Your task to perform on an android device: allow cookies in the chrome app Image 0: 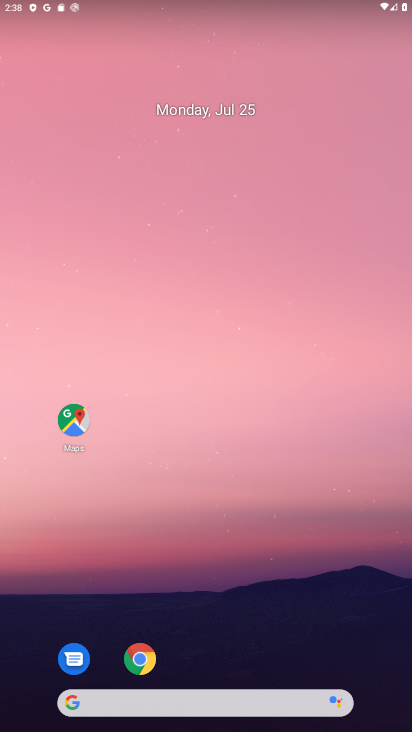
Step 0: click (132, 670)
Your task to perform on an android device: allow cookies in the chrome app Image 1: 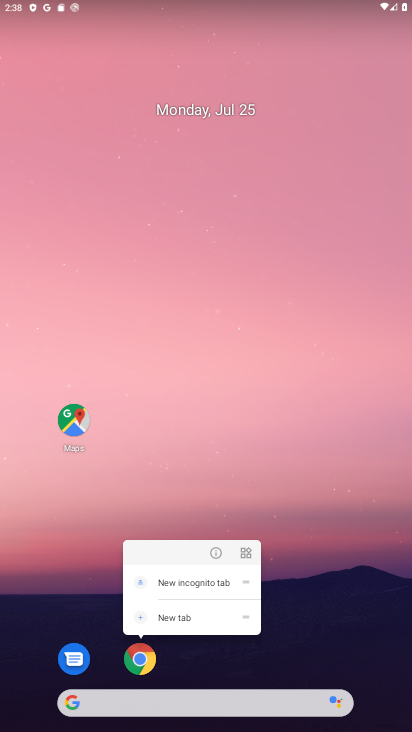
Step 1: click (150, 640)
Your task to perform on an android device: allow cookies in the chrome app Image 2: 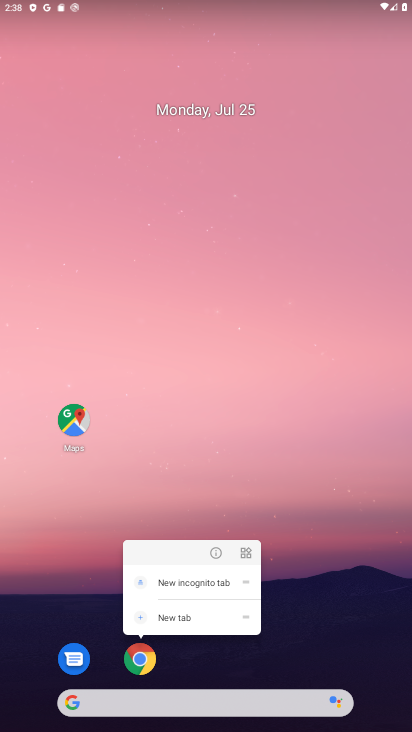
Step 2: click (149, 658)
Your task to perform on an android device: allow cookies in the chrome app Image 3: 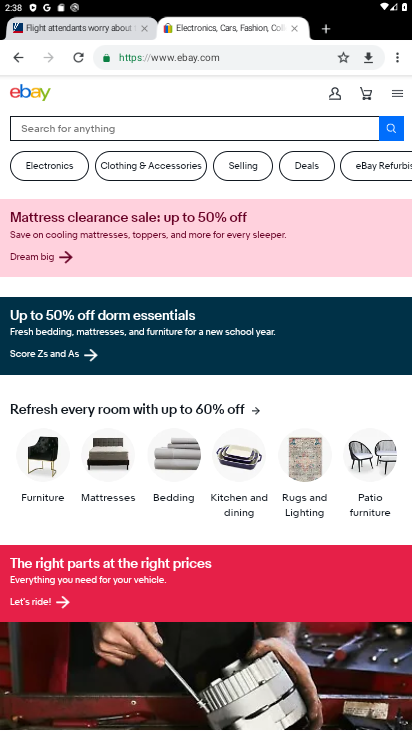
Step 3: drag from (394, 58) to (274, 428)
Your task to perform on an android device: allow cookies in the chrome app Image 4: 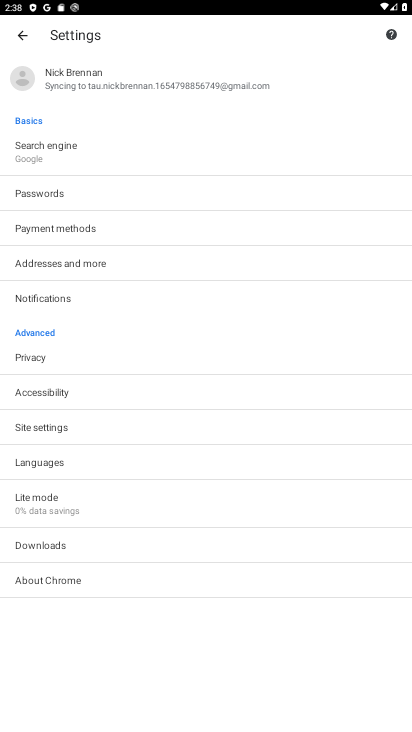
Step 4: click (61, 425)
Your task to perform on an android device: allow cookies in the chrome app Image 5: 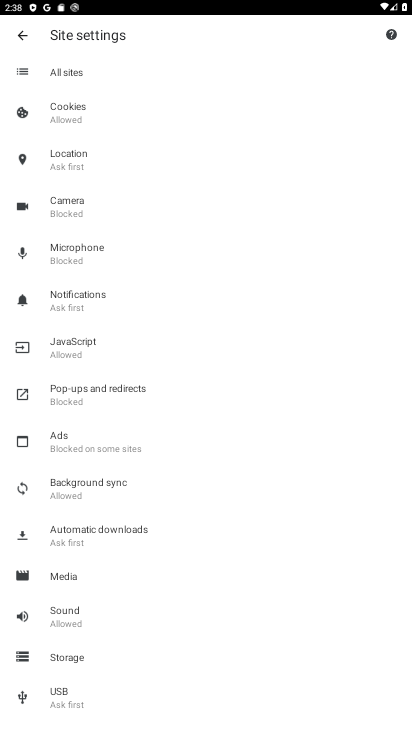
Step 5: click (65, 120)
Your task to perform on an android device: allow cookies in the chrome app Image 6: 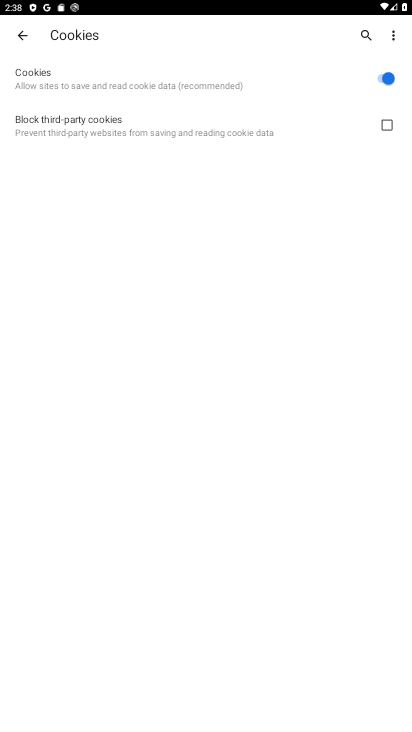
Step 6: task complete